Your task to perform on an android device: Open notification settings Image 0: 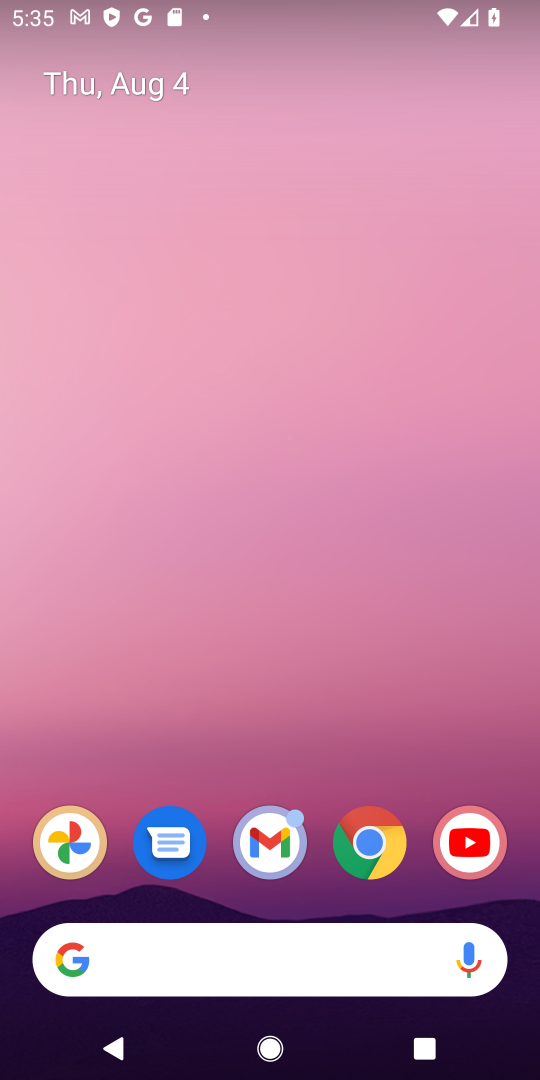
Step 0: drag from (498, 713) to (453, 0)
Your task to perform on an android device: Open notification settings Image 1: 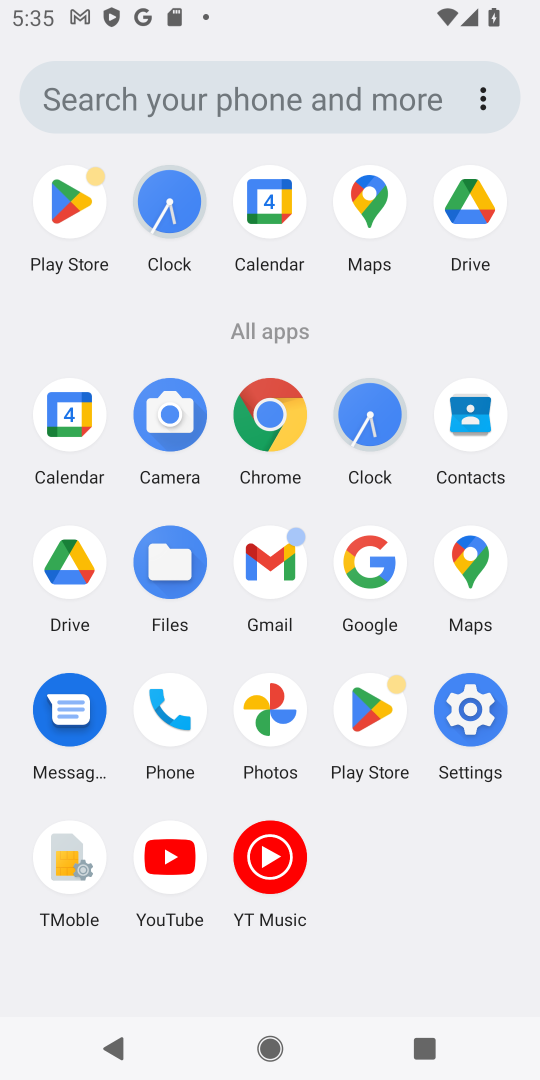
Step 1: click (480, 705)
Your task to perform on an android device: Open notification settings Image 2: 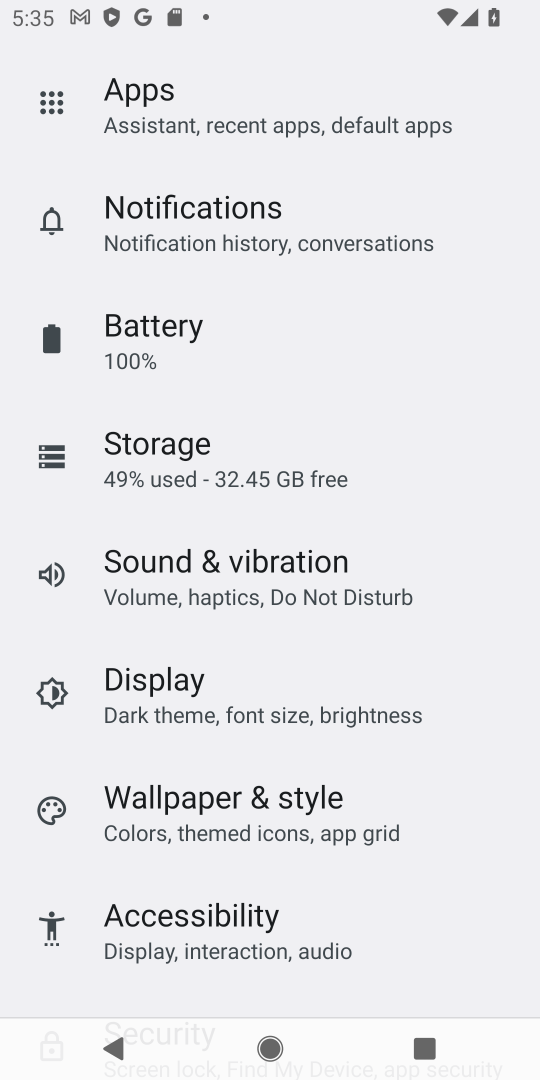
Step 2: click (266, 200)
Your task to perform on an android device: Open notification settings Image 3: 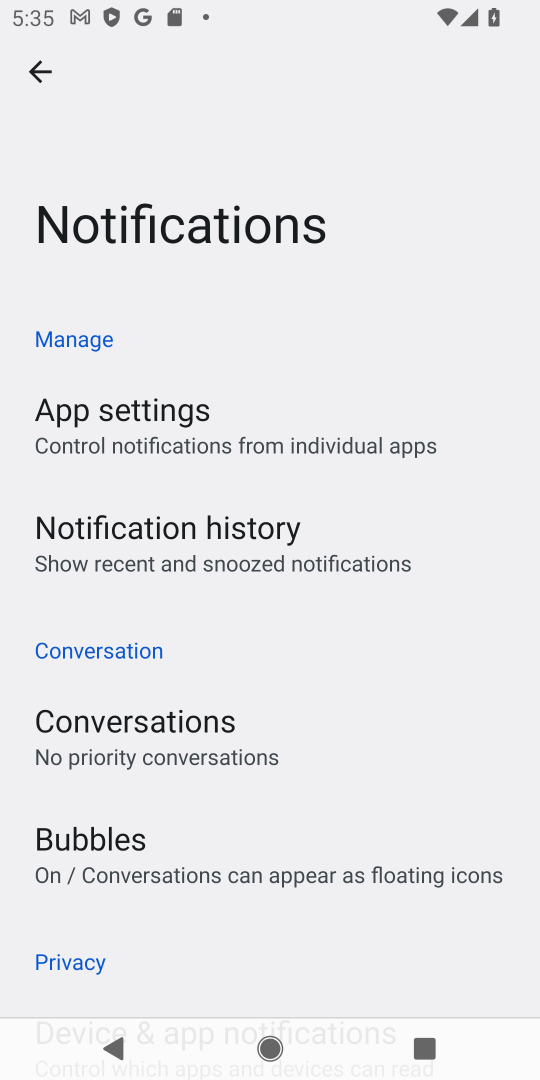
Step 3: task complete